Your task to perform on an android device: Open location settings Image 0: 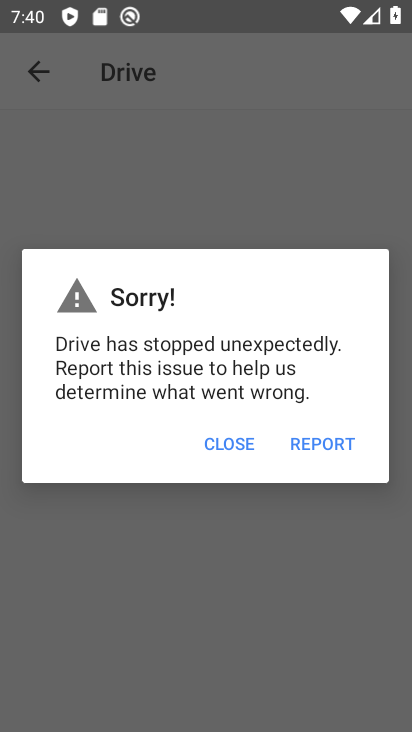
Step 0: press home button
Your task to perform on an android device: Open location settings Image 1: 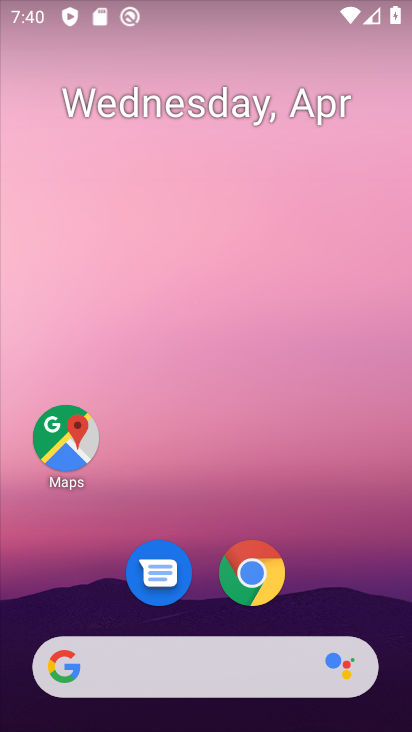
Step 1: drag from (37, 644) to (320, 112)
Your task to perform on an android device: Open location settings Image 2: 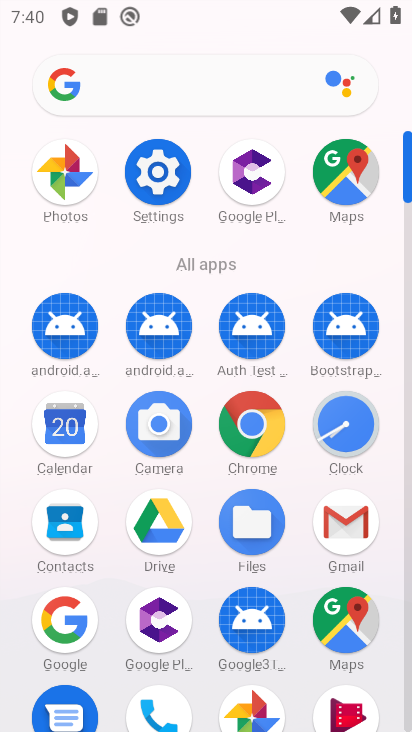
Step 2: click (153, 183)
Your task to perform on an android device: Open location settings Image 3: 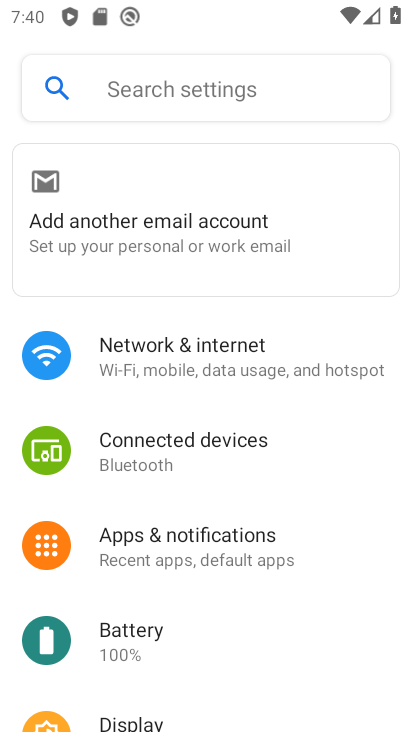
Step 3: drag from (164, 677) to (238, 268)
Your task to perform on an android device: Open location settings Image 4: 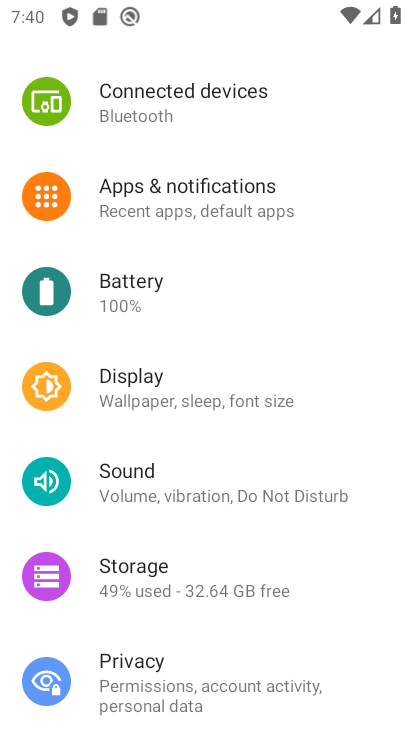
Step 4: drag from (216, 622) to (306, 287)
Your task to perform on an android device: Open location settings Image 5: 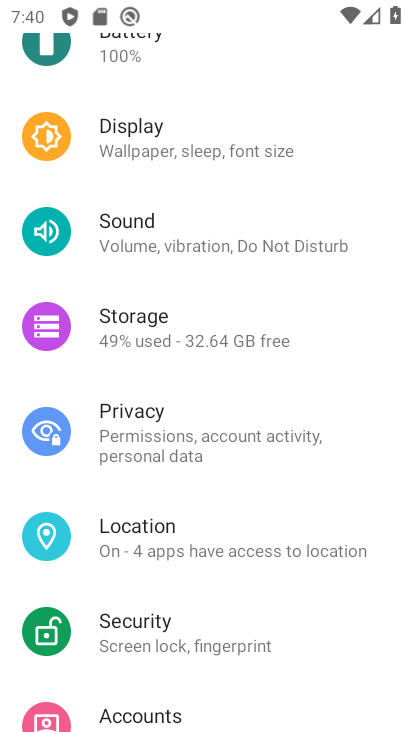
Step 5: click (200, 540)
Your task to perform on an android device: Open location settings Image 6: 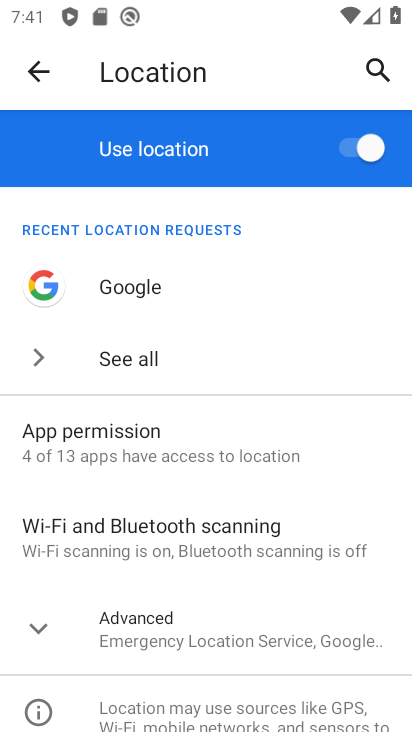
Step 6: drag from (149, 645) to (270, 287)
Your task to perform on an android device: Open location settings Image 7: 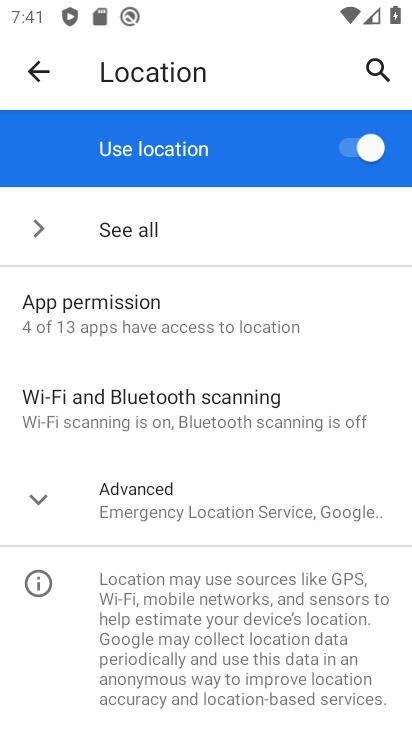
Step 7: drag from (190, 621) to (292, 263)
Your task to perform on an android device: Open location settings Image 8: 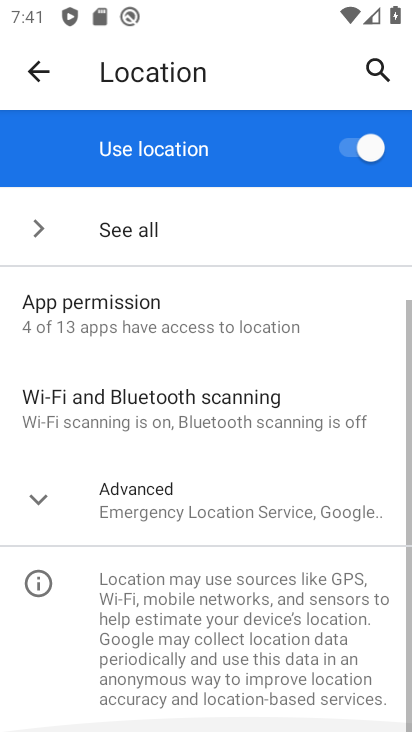
Step 8: drag from (305, 251) to (272, 622)
Your task to perform on an android device: Open location settings Image 9: 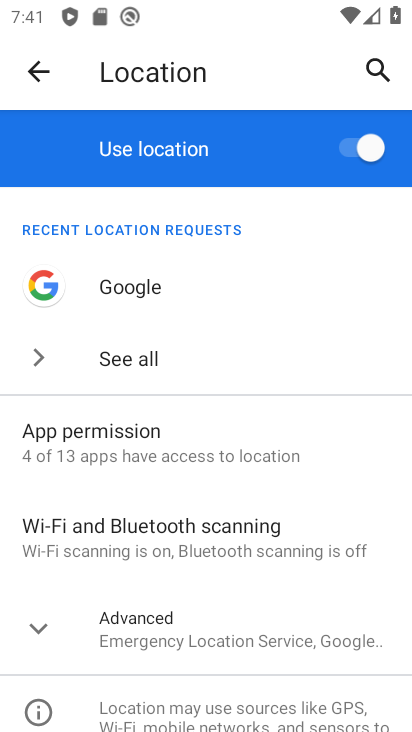
Step 9: drag from (185, 275) to (187, 566)
Your task to perform on an android device: Open location settings Image 10: 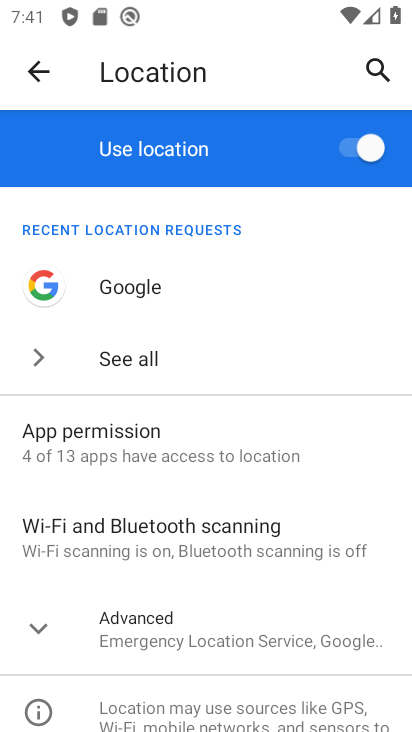
Step 10: drag from (151, 641) to (194, 354)
Your task to perform on an android device: Open location settings Image 11: 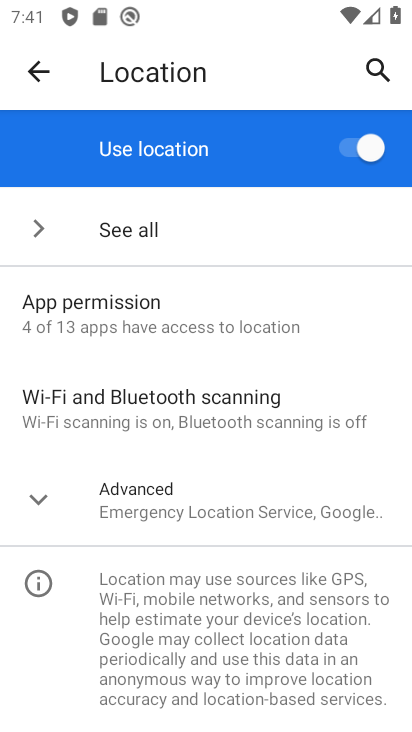
Step 11: click (35, 496)
Your task to perform on an android device: Open location settings Image 12: 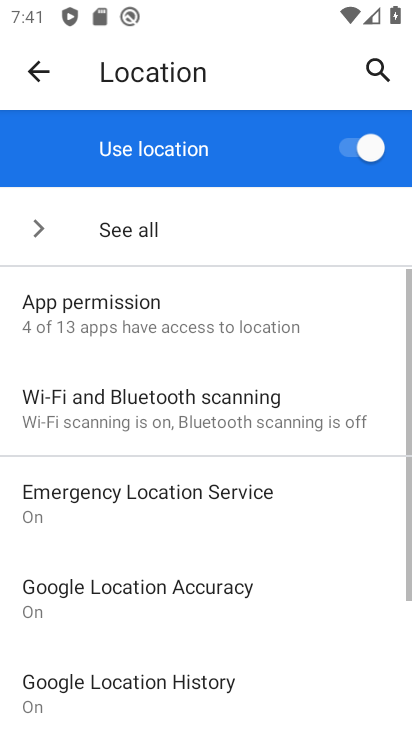
Step 12: drag from (187, 635) to (223, 352)
Your task to perform on an android device: Open location settings Image 13: 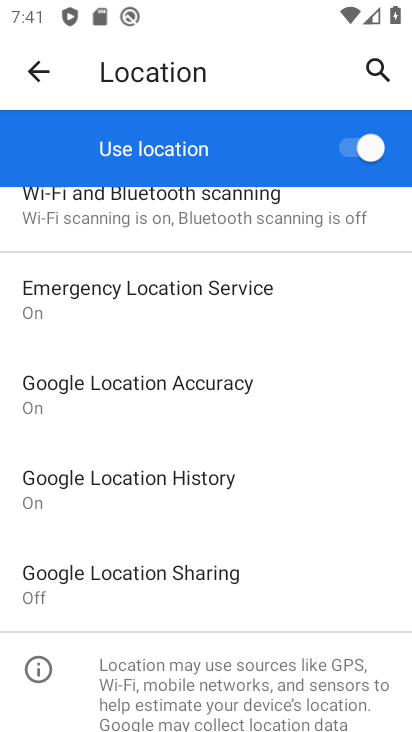
Step 13: drag from (258, 637) to (316, 271)
Your task to perform on an android device: Open location settings Image 14: 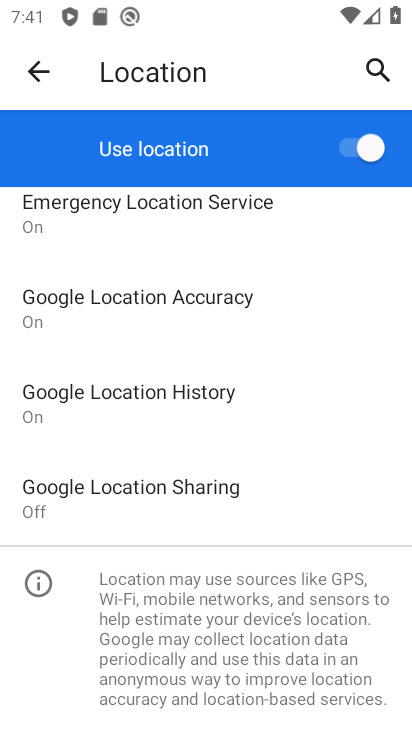
Step 14: click (30, 73)
Your task to perform on an android device: Open location settings Image 15: 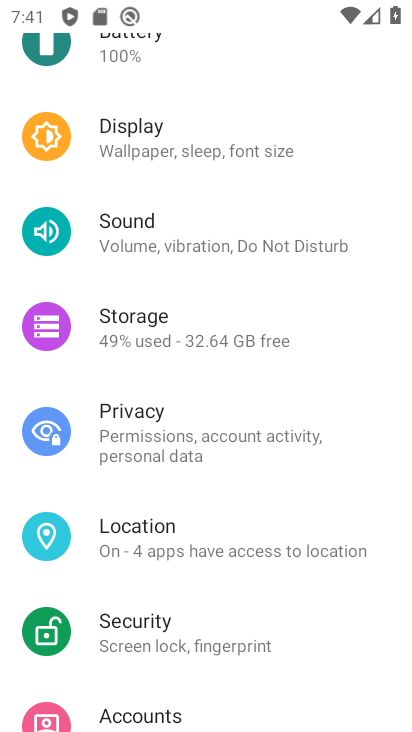
Step 15: task complete